Your task to perform on an android device: What's the news in Indonesia? Image 0: 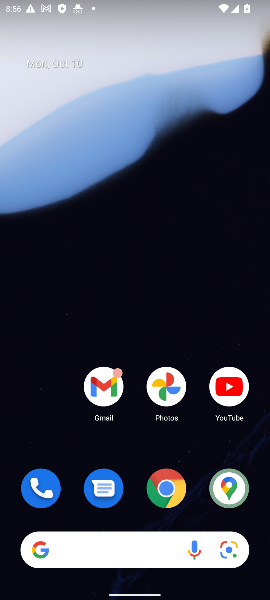
Step 0: drag from (200, 448) to (107, 71)
Your task to perform on an android device: What's the news in Indonesia? Image 1: 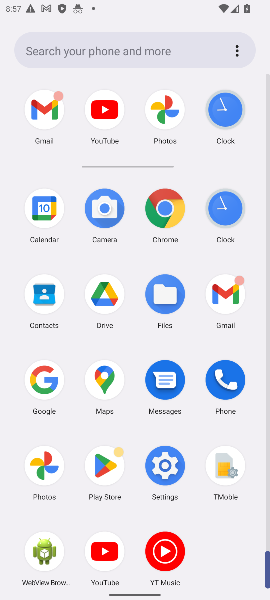
Step 1: click (163, 212)
Your task to perform on an android device: What's the news in Indonesia? Image 2: 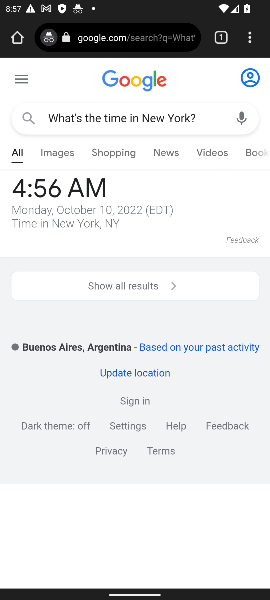
Step 2: click (146, 46)
Your task to perform on an android device: What's the news in Indonesia? Image 3: 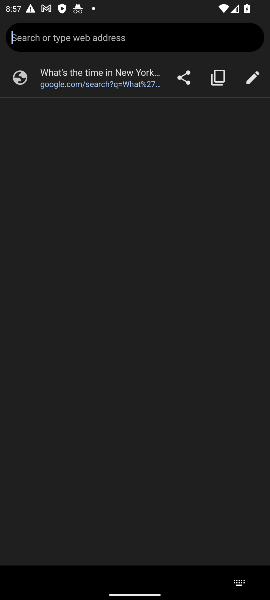
Step 3: type "What's the news in Indonesia?"
Your task to perform on an android device: What's the news in Indonesia? Image 4: 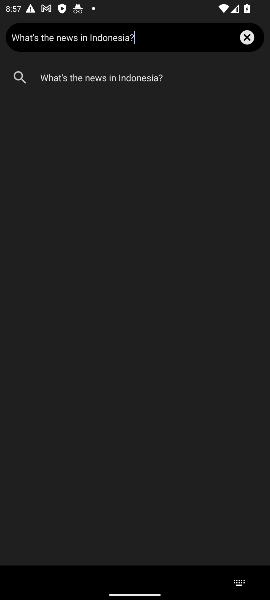
Step 4: press enter
Your task to perform on an android device: What's the news in Indonesia? Image 5: 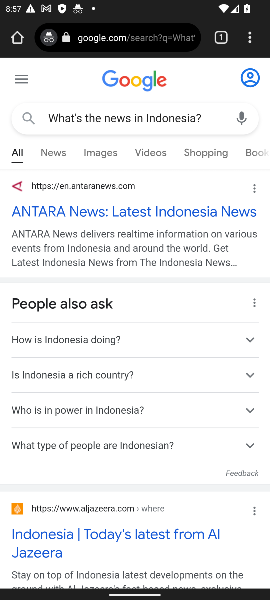
Step 5: drag from (166, 455) to (123, 169)
Your task to perform on an android device: What's the news in Indonesia? Image 6: 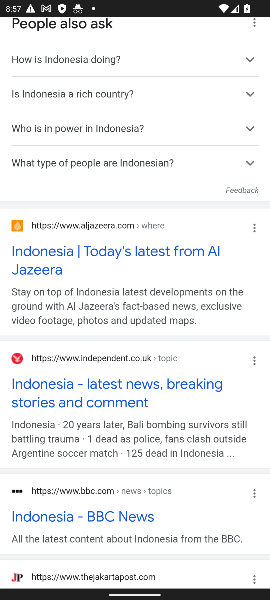
Step 6: click (145, 249)
Your task to perform on an android device: What's the news in Indonesia? Image 7: 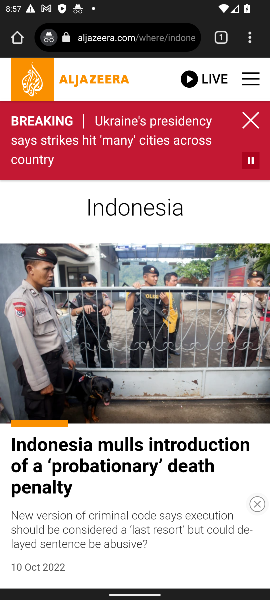
Step 7: task complete